Your task to perform on an android device: delete browsing data in the chrome app Image 0: 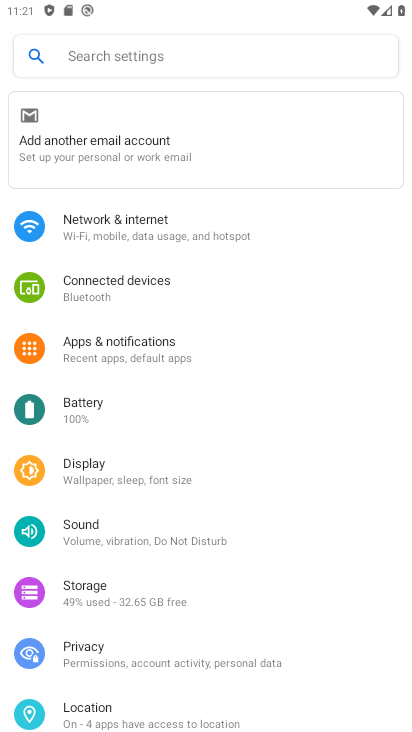
Step 0: press home button
Your task to perform on an android device: delete browsing data in the chrome app Image 1: 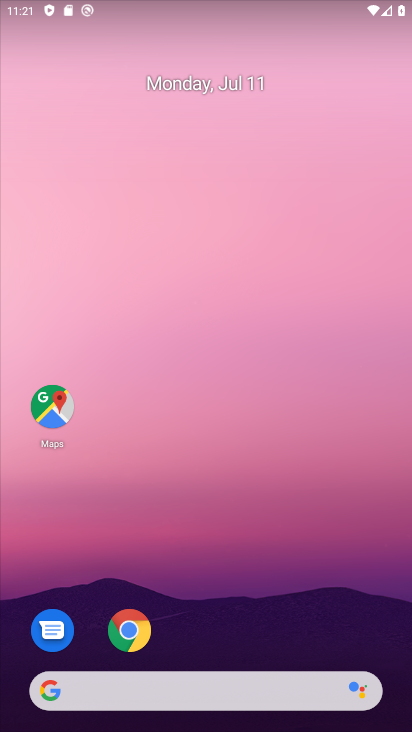
Step 1: click (130, 630)
Your task to perform on an android device: delete browsing data in the chrome app Image 2: 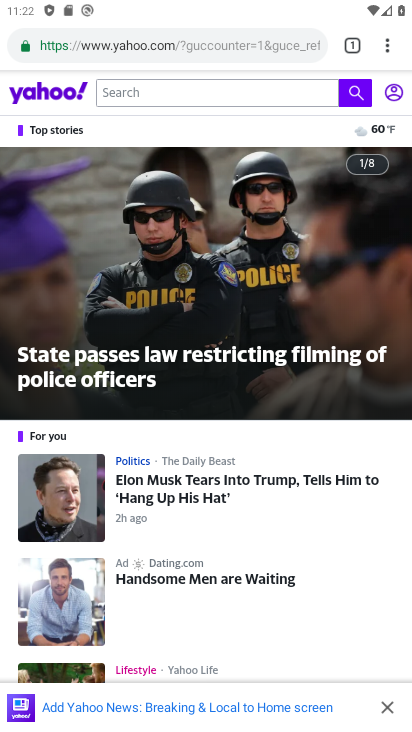
Step 2: click (387, 47)
Your task to perform on an android device: delete browsing data in the chrome app Image 3: 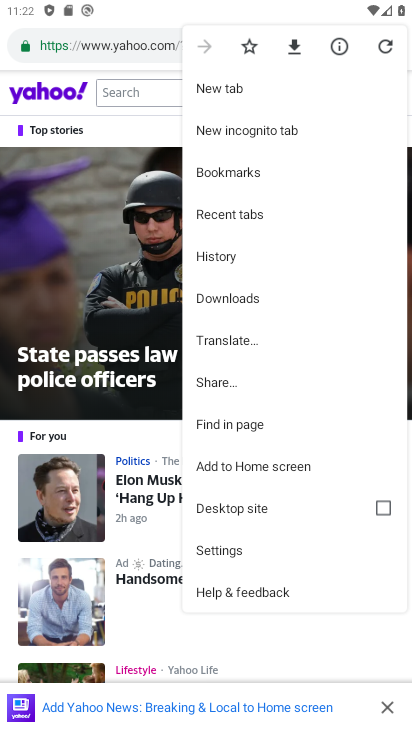
Step 3: click (225, 553)
Your task to perform on an android device: delete browsing data in the chrome app Image 4: 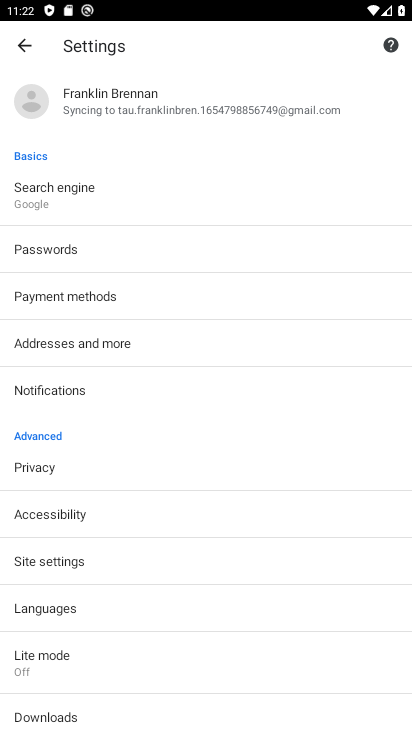
Step 4: click (37, 473)
Your task to perform on an android device: delete browsing data in the chrome app Image 5: 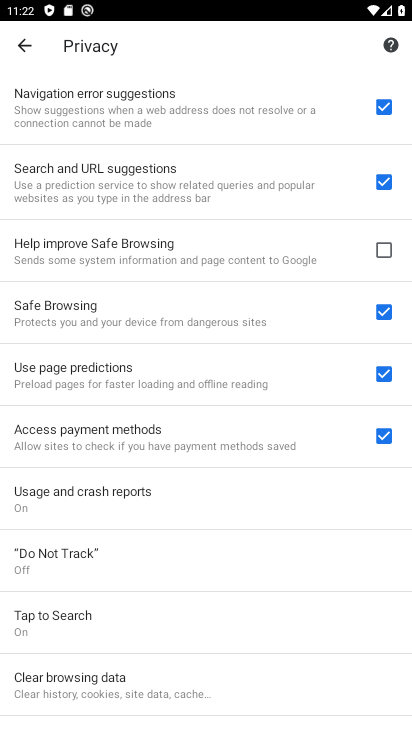
Step 5: click (94, 675)
Your task to perform on an android device: delete browsing data in the chrome app Image 6: 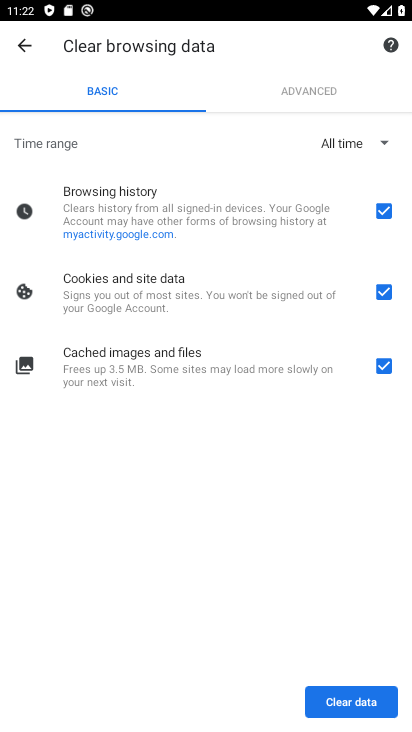
Step 6: click (323, 700)
Your task to perform on an android device: delete browsing data in the chrome app Image 7: 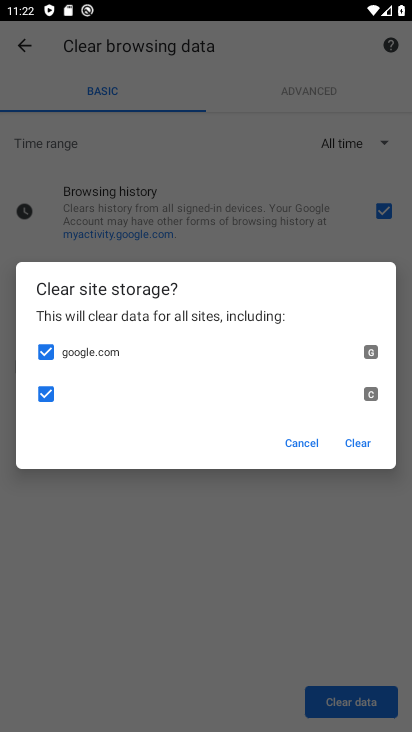
Step 7: click (354, 445)
Your task to perform on an android device: delete browsing data in the chrome app Image 8: 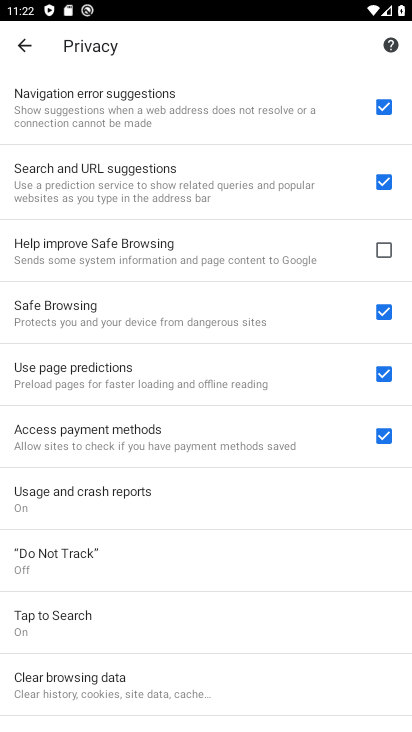
Step 8: task complete